Your task to perform on an android device: turn off translation in the chrome app Image 0: 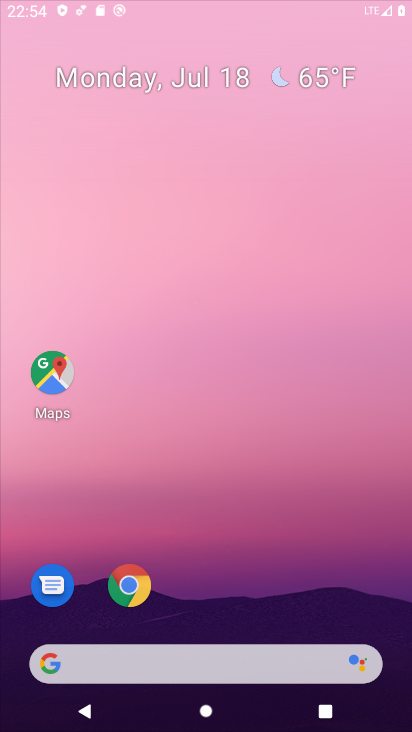
Step 0: press home button
Your task to perform on an android device: turn off translation in the chrome app Image 1: 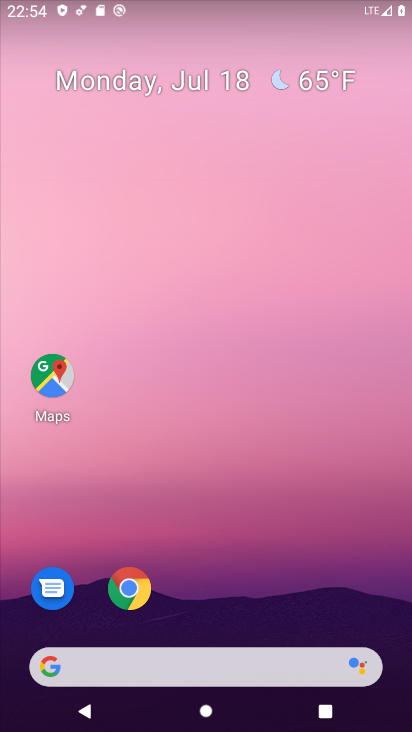
Step 1: click (124, 581)
Your task to perform on an android device: turn off translation in the chrome app Image 2: 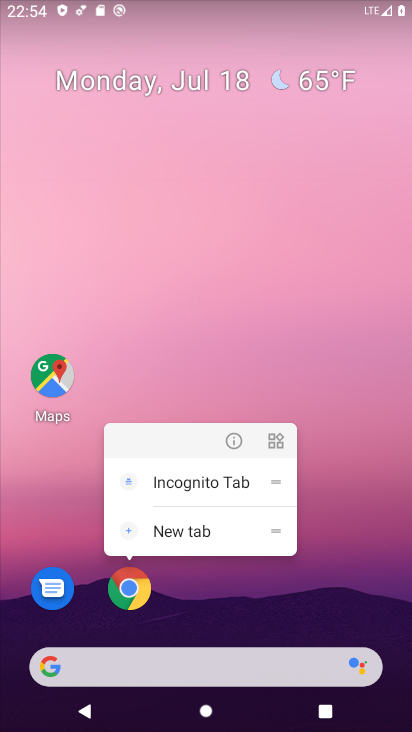
Step 2: click (124, 581)
Your task to perform on an android device: turn off translation in the chrome app Image 3: 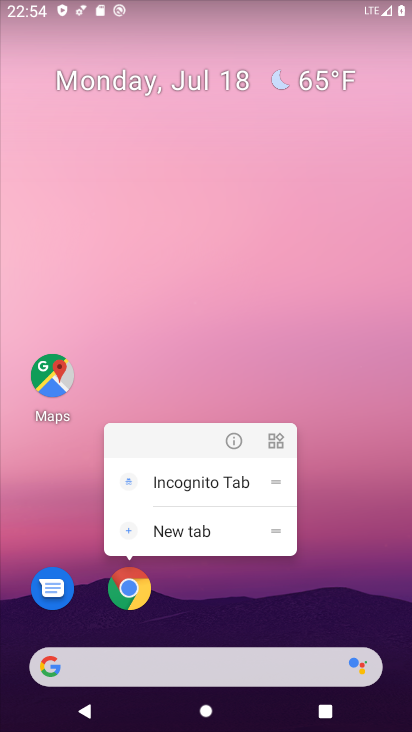
Step 3: click (125, 588)
Your task to perform on an android device: turn off translation in the chrome app Image 4: 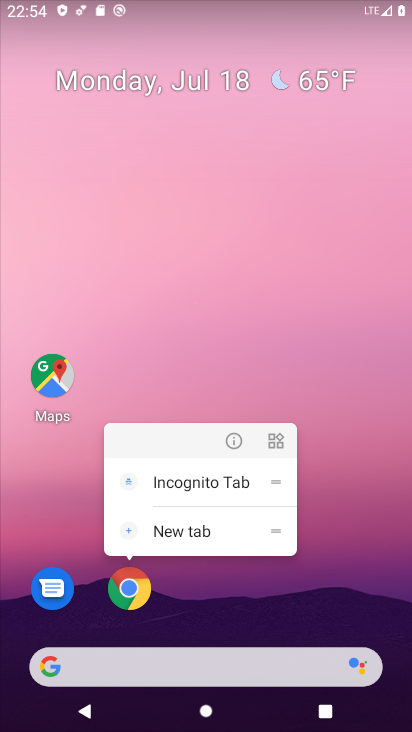
Step 4: click (125, 588)
Your task to perform on an android device: turn off translation in the chrome app Image 5: 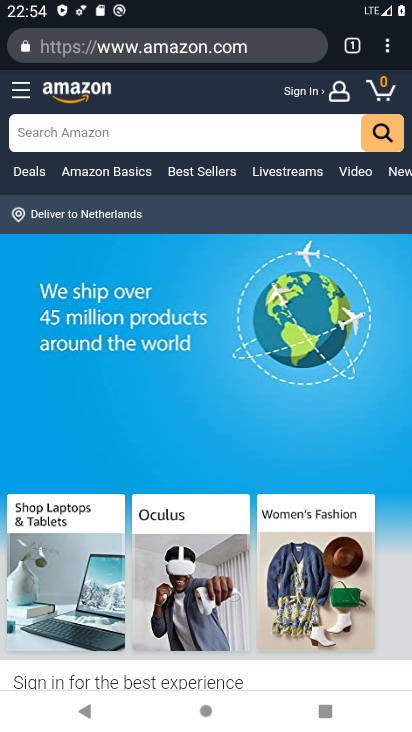
Step 5: drag from (384, 47) to (238, 548)
Your task to perform on an android device: turn off translation in the chrome app Image 6: 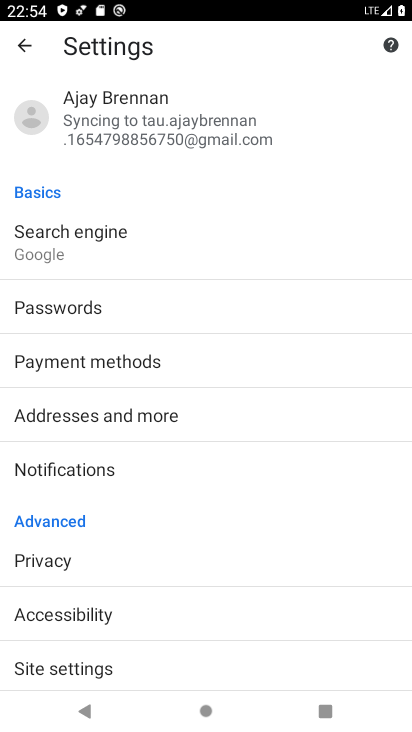
Step 6: drag from (188, 527) to (223, 108)
Your task to perform on an android device: turn off translation in the chrome app Image 7: 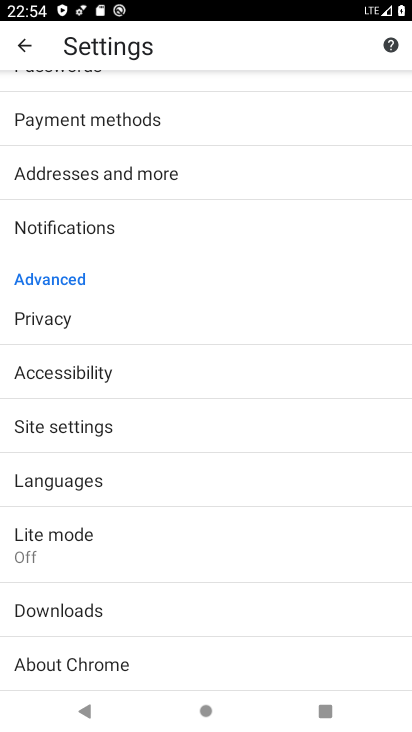
Step 7: click (94, 480)
Your task to perform on an android device: turn off translation in the chrome app Image 8: 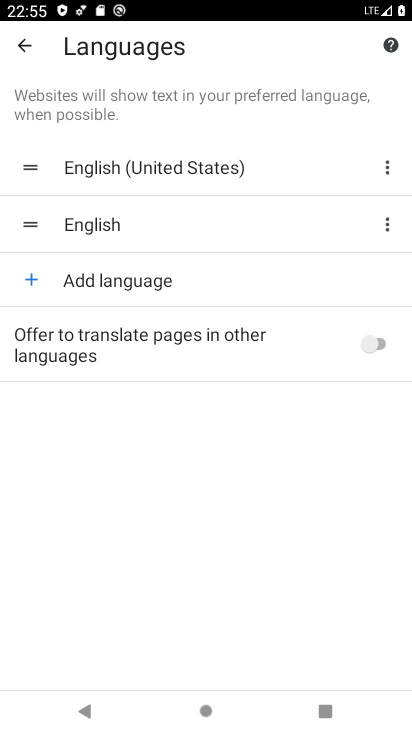
Step 8: task complete